Your task to perform on an android device: Open my contact list Image 0: 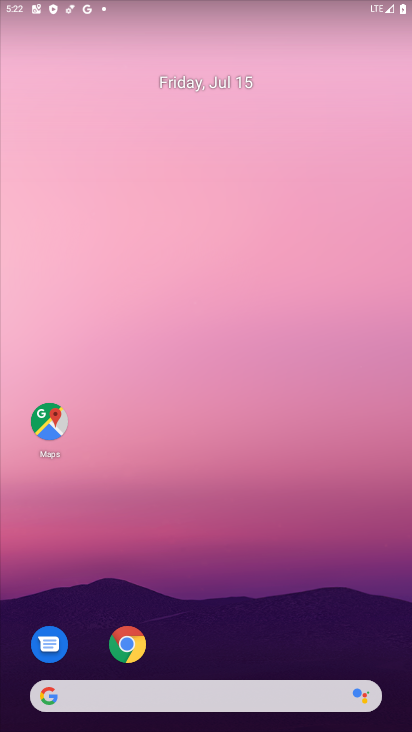
Step 0: drag from (213, 468) to (206, 330)
Your task to perform on an android device: Open my contact list Image 1: 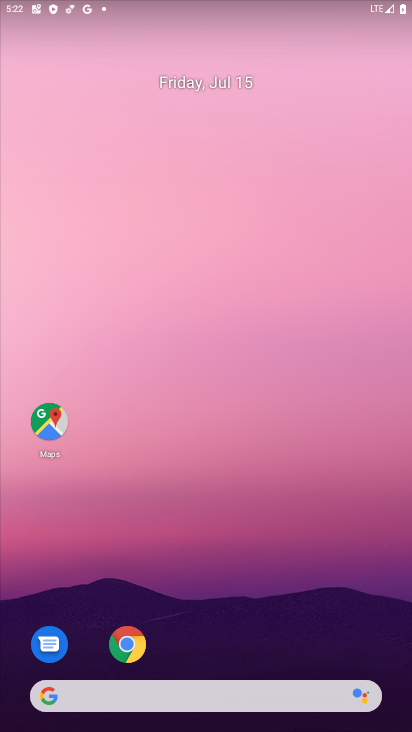
Step 1: drag from (197, 604) to (197, 132)
Your task to perform on an android device: Open my contact list Image 2: 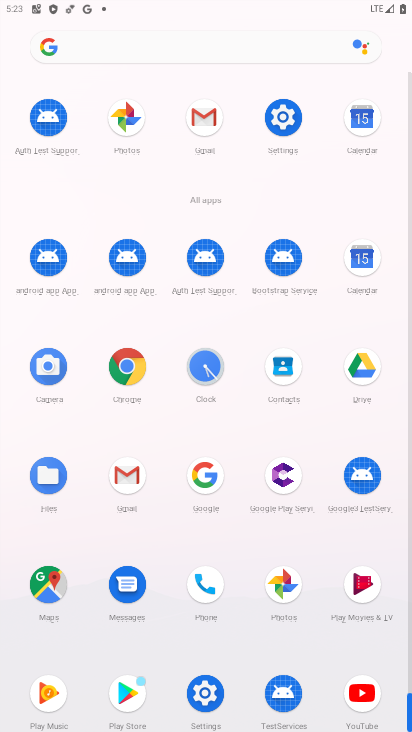
Step 2: click (280, 370)
Your task to perform on an android device: Open my contact list Image 3: 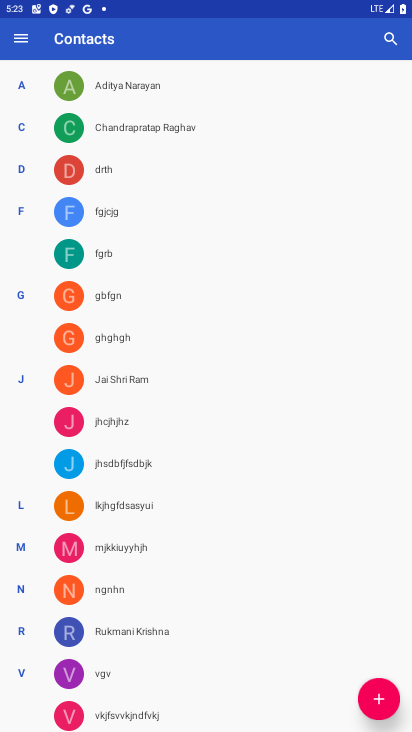
Step 3: task complete